Your task to perform on an android device: Go to internet settings Image 0: 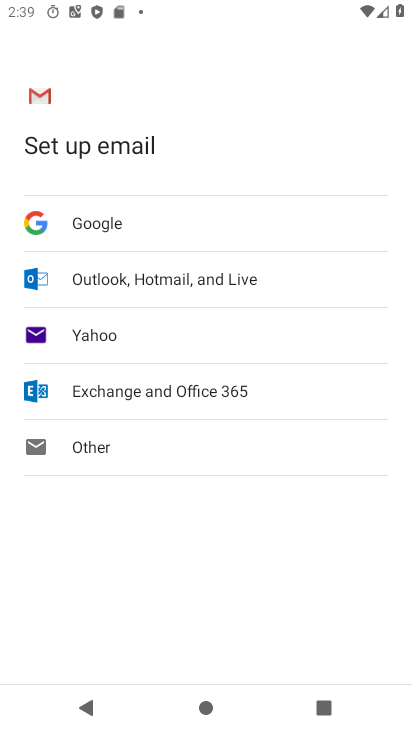
Step 0: press home button
Your task to perform on an android device: Go to internet settings Image 1: 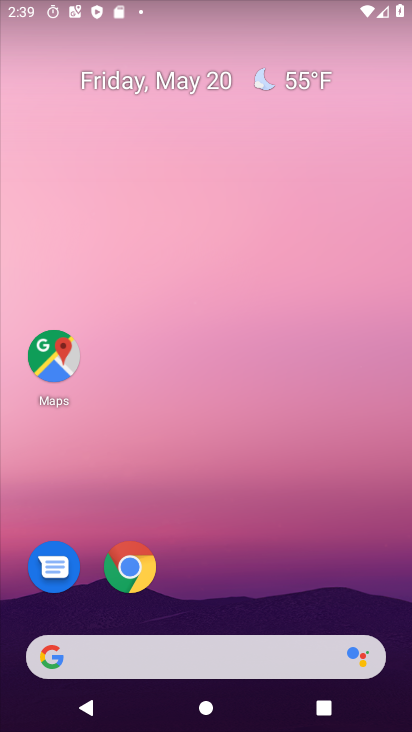
Step 1: drag from (214, 622) to (207, 140)
Your task to perform on an android device: Go to internet settings Image 2: 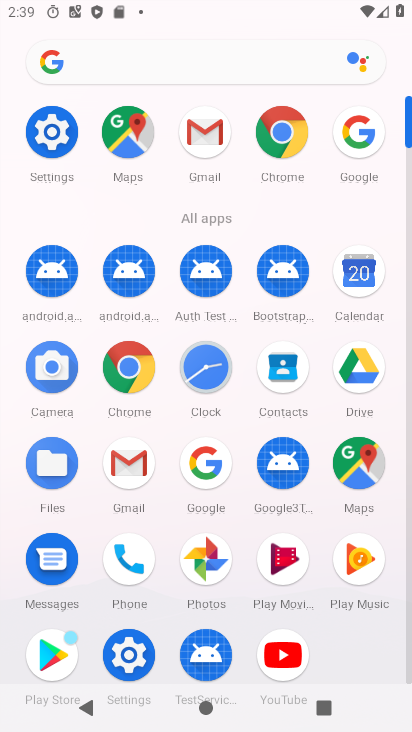
Step 2: click (43, 122)
Your task to perform on an android device: Go to internet settings Image 3: 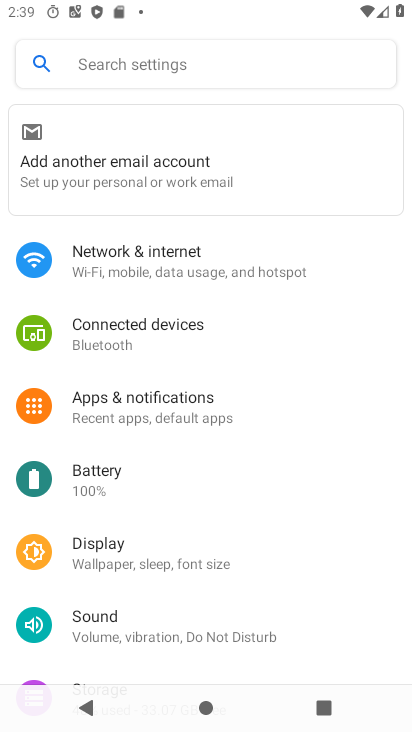
Step 3: click (149, 266)
Your task to perform on an android device: Go to internet settings Image 4: 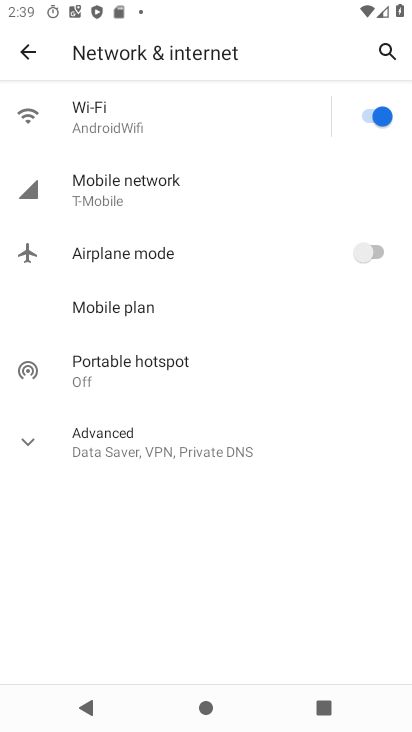
Step 4: click (172, 434)
Your task to perform on an android device: Go to internet settings Image 5: 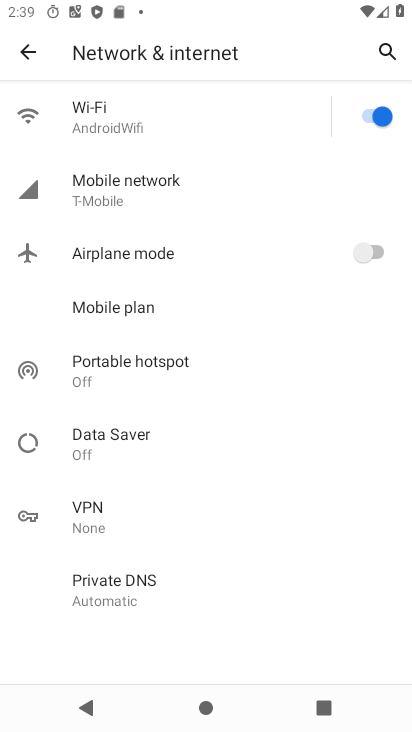
Step 5: task complete